Your task to perform on an android device: toggle sleep mode Image 0: 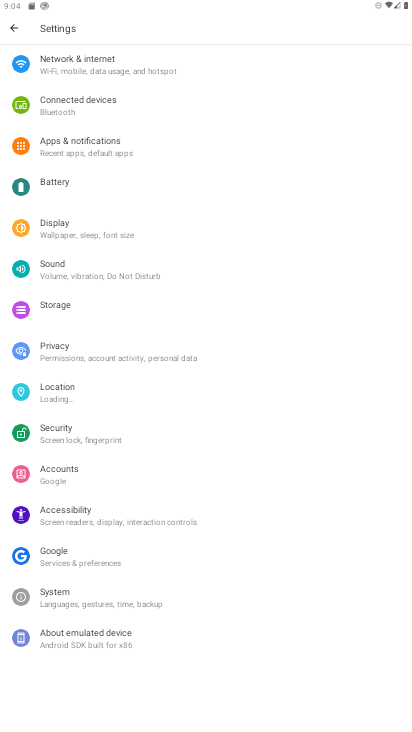
Step 0: press home button
Your task to perform on an android device: toggle sleep mode Image 1: 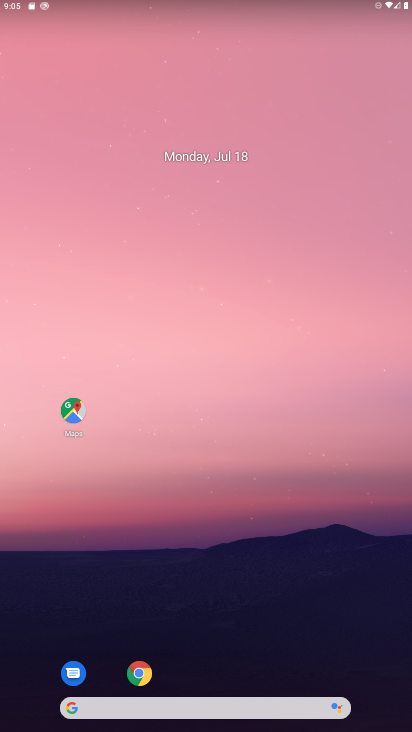
Step 1: drag from (286, 585) to (317, 13)
Your task to perform on an android device: toggle sleep mode Image 2: 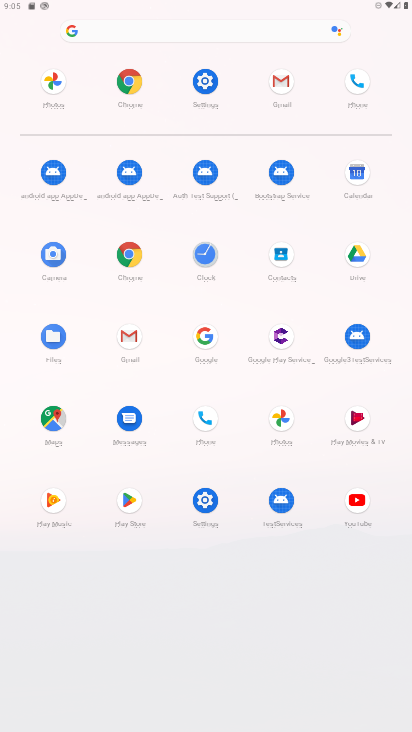
Step 2: click (199, 78)
Your task to perform on an android device: toggle sleep mode Image 3: 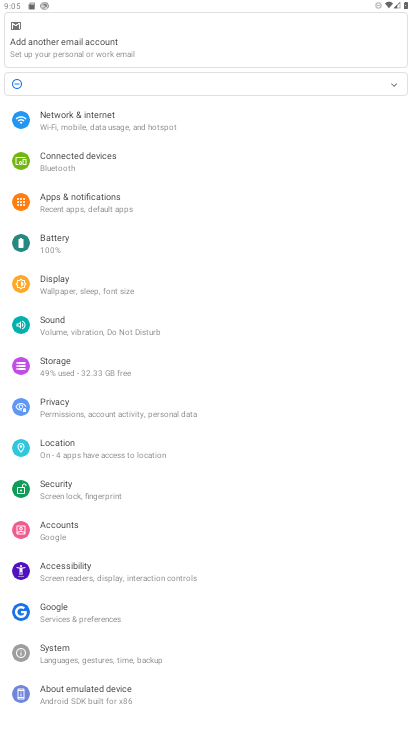
Step 3: click (56, 292)
Your task to perform on an android device: toggle sleep mode Image 4: 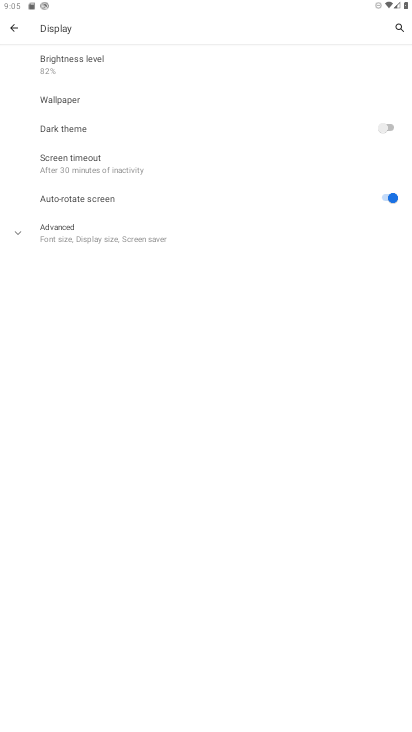
Step 4: task complete